Your task to perform on an android device: clear history in the chrome app Image 0: 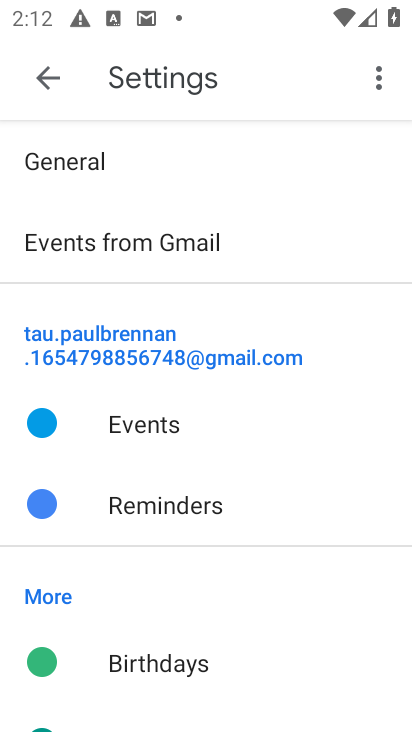
Step 0: press home button
Your task to perform on an android device: clear history in the chrome app Image 1: 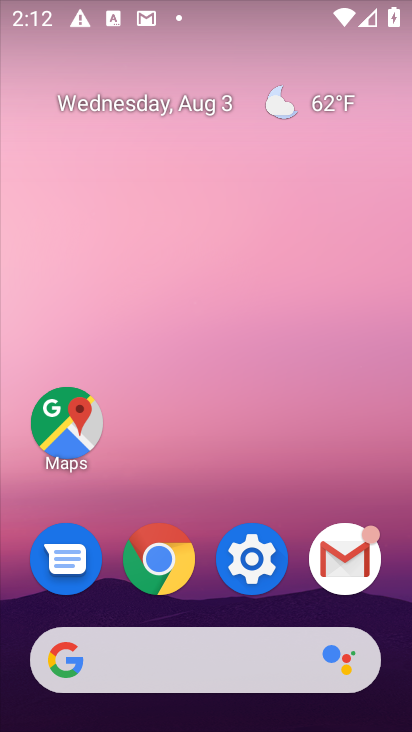
Step 1: click (253, 549)
Your task to perform on an android device: clear history in the chrome app Image 2: 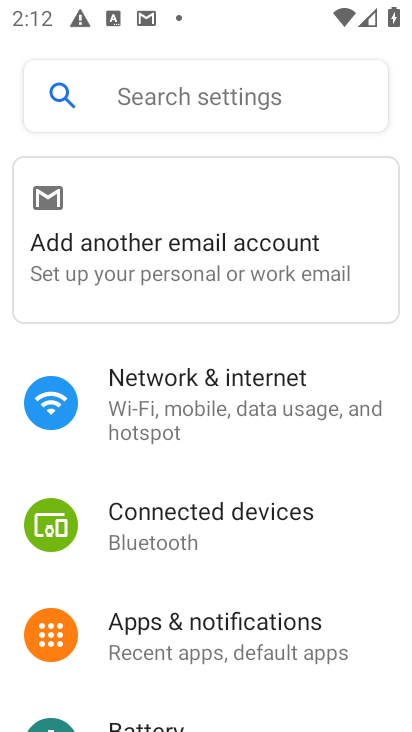
Step 2: press home button
Your task to perform on an android device: clear history in the chrome app Image 3: 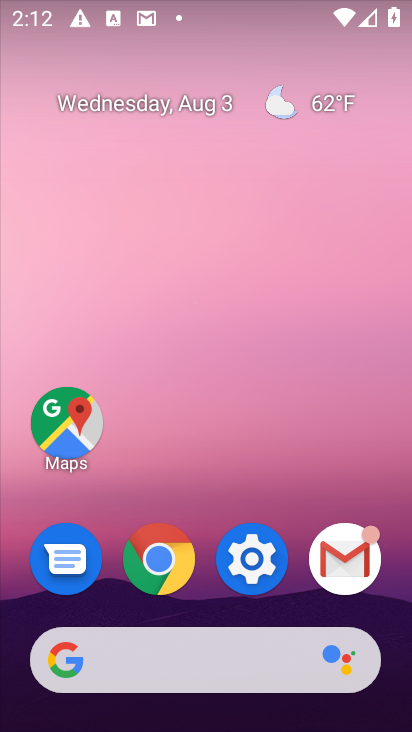
Step 3: click (175, 554)
Your task to perform on an android device: clear history in the chrome app Image 4: 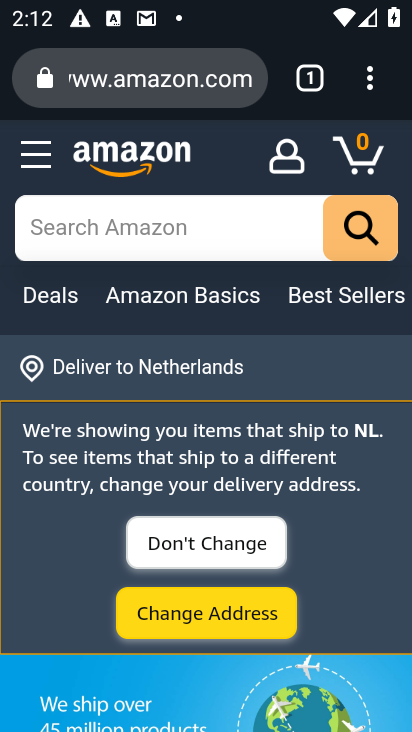
Step 4: click (367, 82)
Your task to perform on an android device: clear history in the chrome app Image 5: 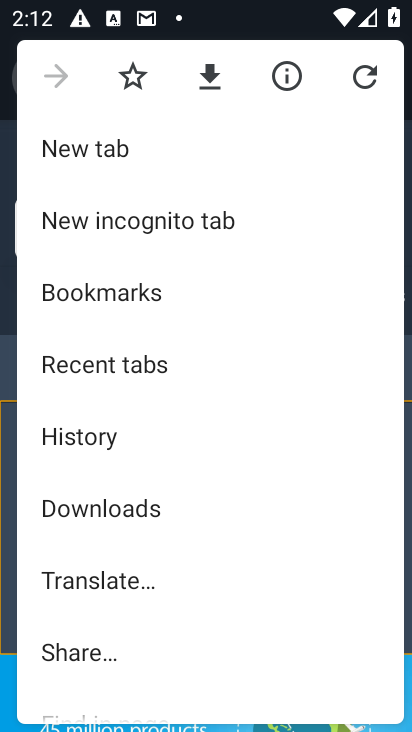
Step 5: drag from (110, 587) to (127, 270)
Your task to perform on an android device: clear history in the chrome app Image 6: 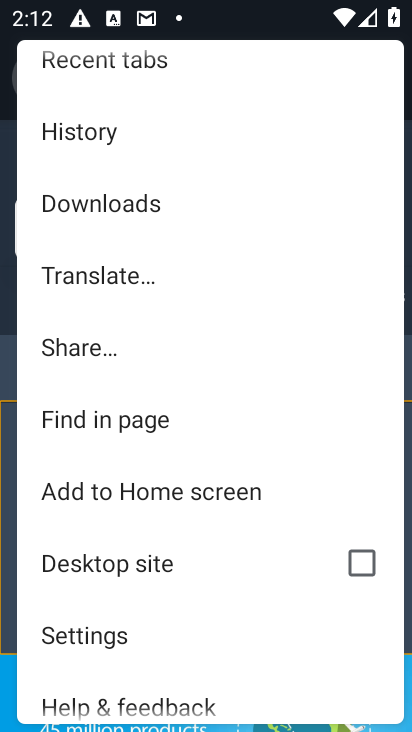
Step 6: click (113, 618)
Your task to perform on an android device: clear history in the chrome app Image 7: 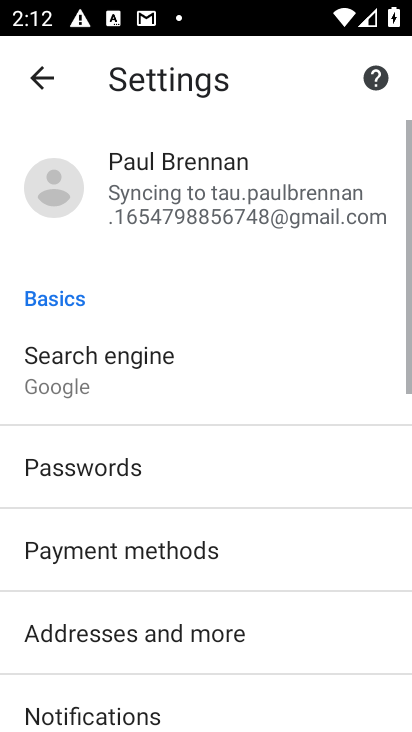
Step 7: drag from (156, 627) to (151, 265)
Your task to perform on an android device: clear history in the chrome app Image 8: 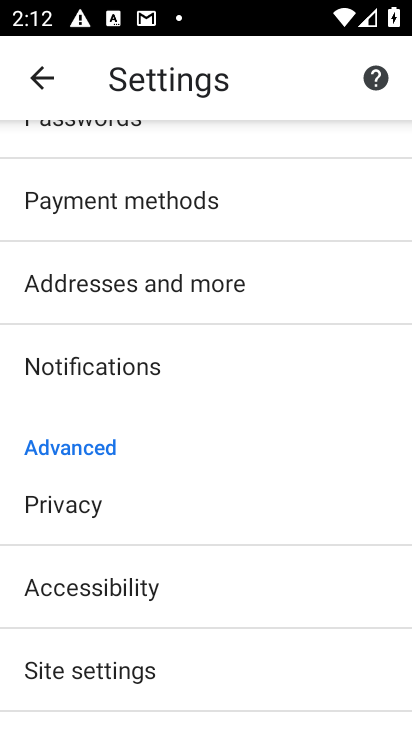
Step 8: drag from (126, 634) to (181, 365)
Your task to perform on an android device: clear history in the chrome app Image 9: 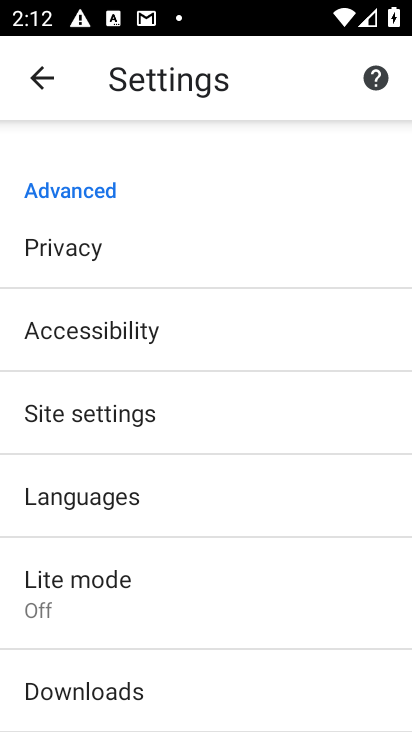
Step 9: drag from (110, 373) to (190, 674)
Your task to perform on an android device: clear history in the chrome app Image 10: 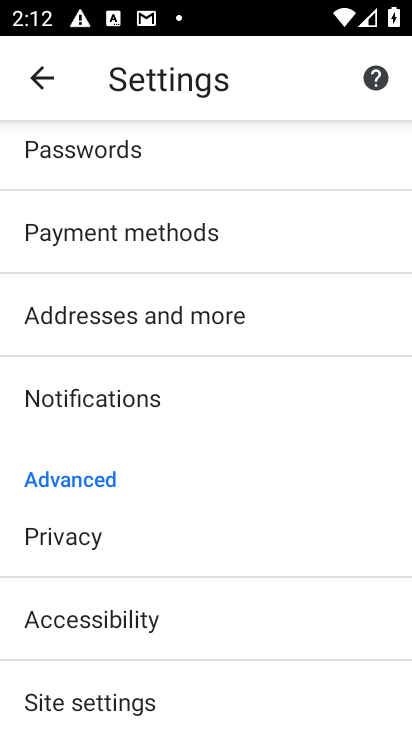
Step 10: click (105, 540)
Your task to perform on an android device: clear history in the chrome app Image 11: 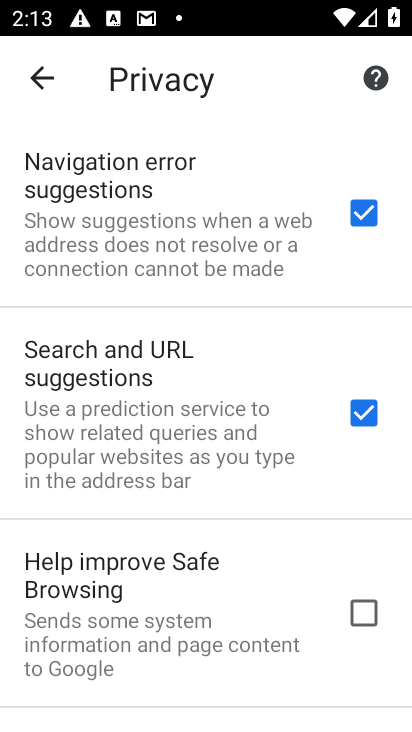
Step 11: drag from (176, 699) to (144, 302)
Your task to perform on an android device: clear history in the chrome app Image 12: 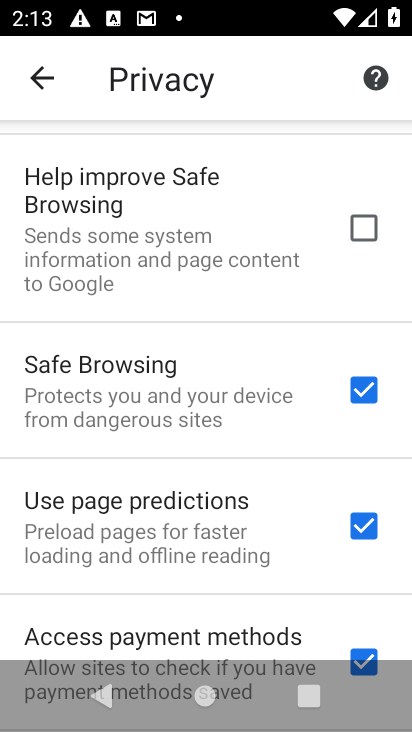
Step 12: drag from (145, 617) to (144, 244)
Your task to perform on an android device: clear history in the chrome app Image 13: 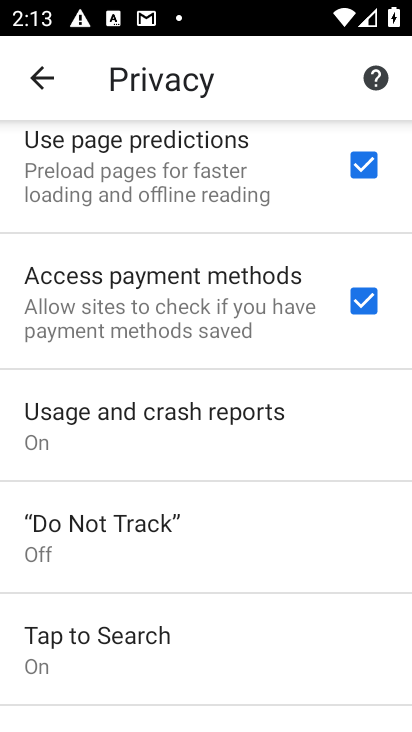
Step 13: drag from (167, 613) to (156, 283)
Your task to perform on an android device: clear history in the chrome app Image 14: 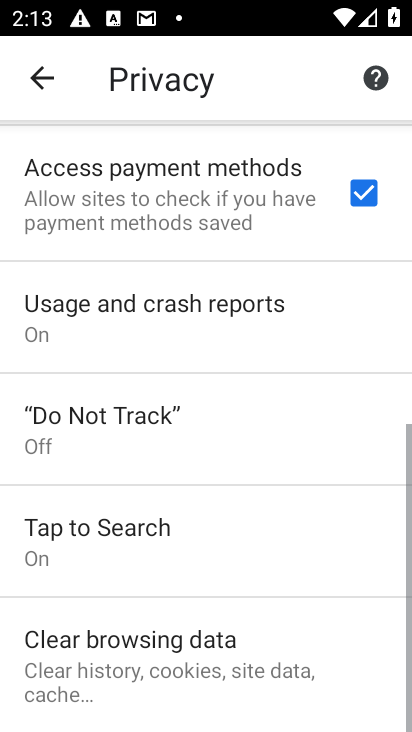
Step 14: click (141, 644)
Your task to perform on an android device: clear history in the chrome app Image 15: 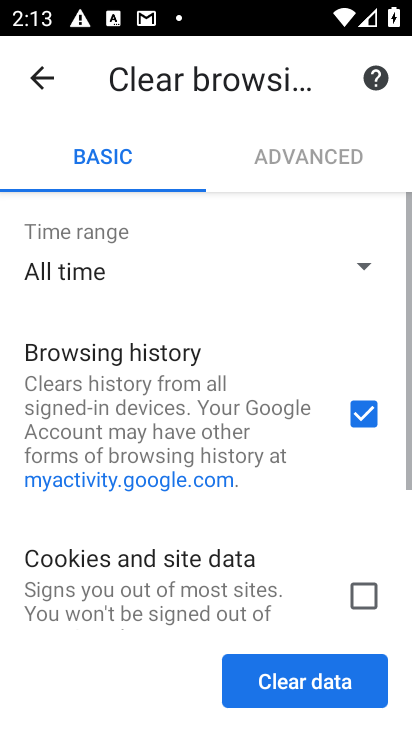
Step 15: click (302, 667)
Your task to perform on an android device: clear history in the chrome app Image 16: 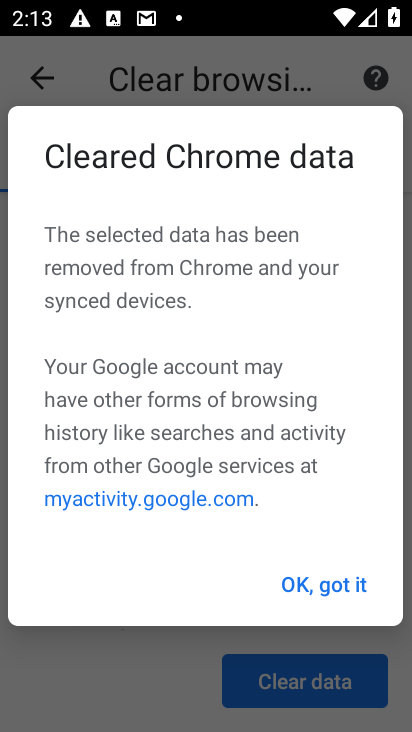
Step 16: task complete